Your task to perform on an android device: turn on location history Image 0: 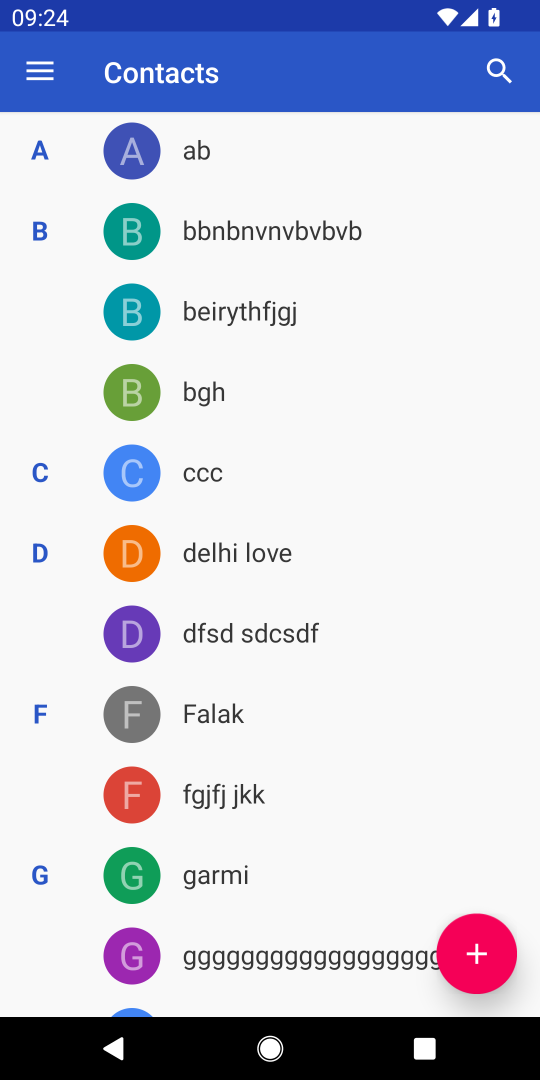
Step 0: press home button
Your task to perform on an android device: turn on location history Image 1: 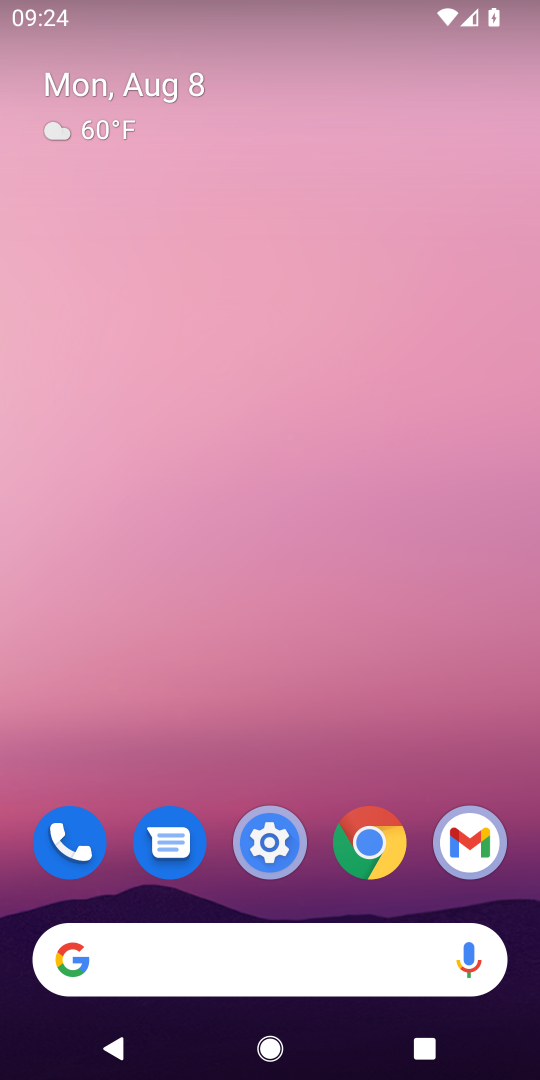
Step 1: click (259, 841)
Your task to perform on an android device: turn on location history Image 2: 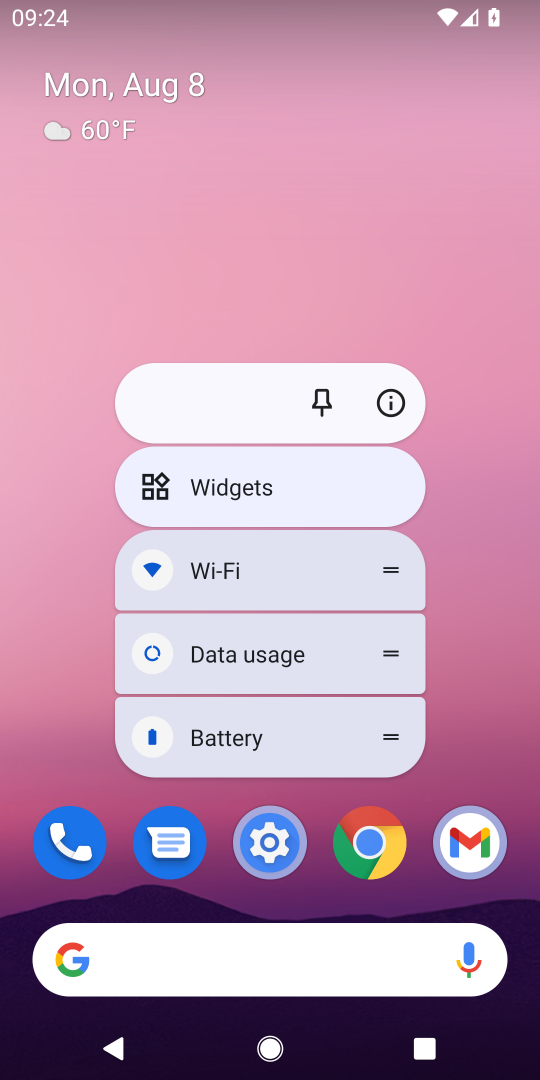
Step 2: click (259, 841)
Your task to perform on an android device: turn on location history Image 3: 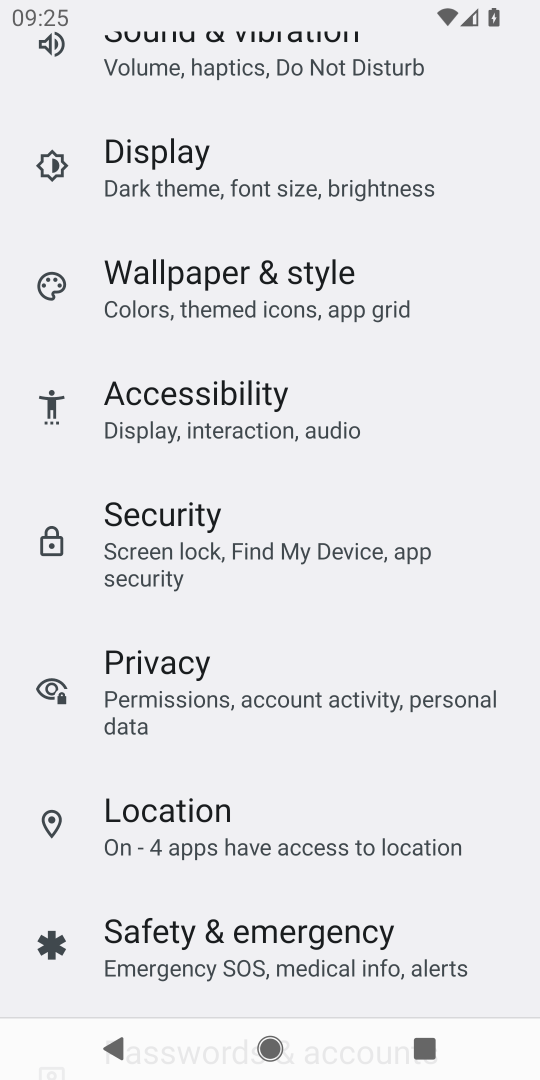
Step 3: click (215, 817)
Your task to perform on an android device: turn on location history Image 4: 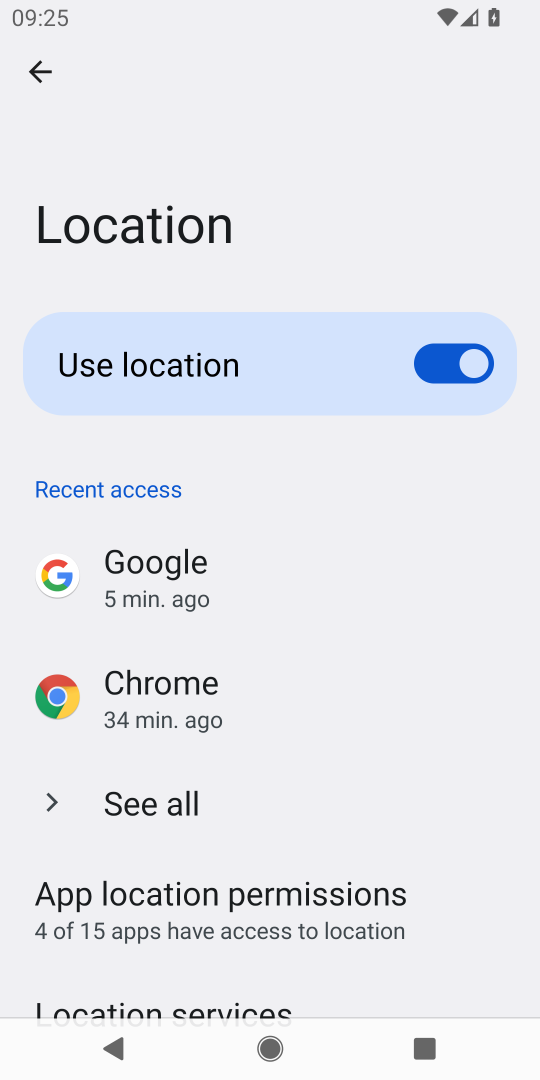
Step 4: click (229, 1001)
Your task to perform on an android device: turn on location history Image 5: 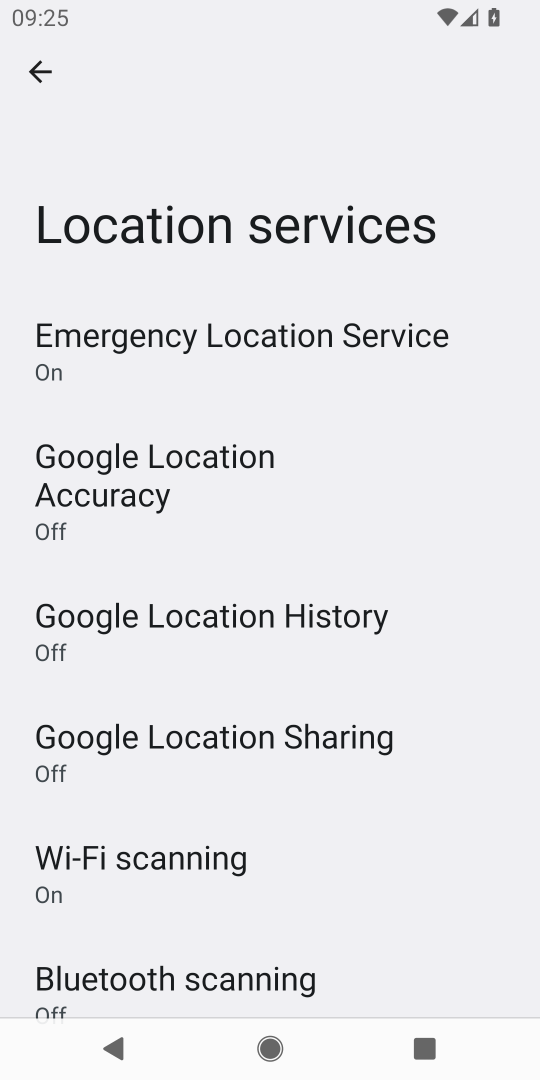
Step 5: click (286, 619)
Your task to perform on an android device: turn on location history Image 6: 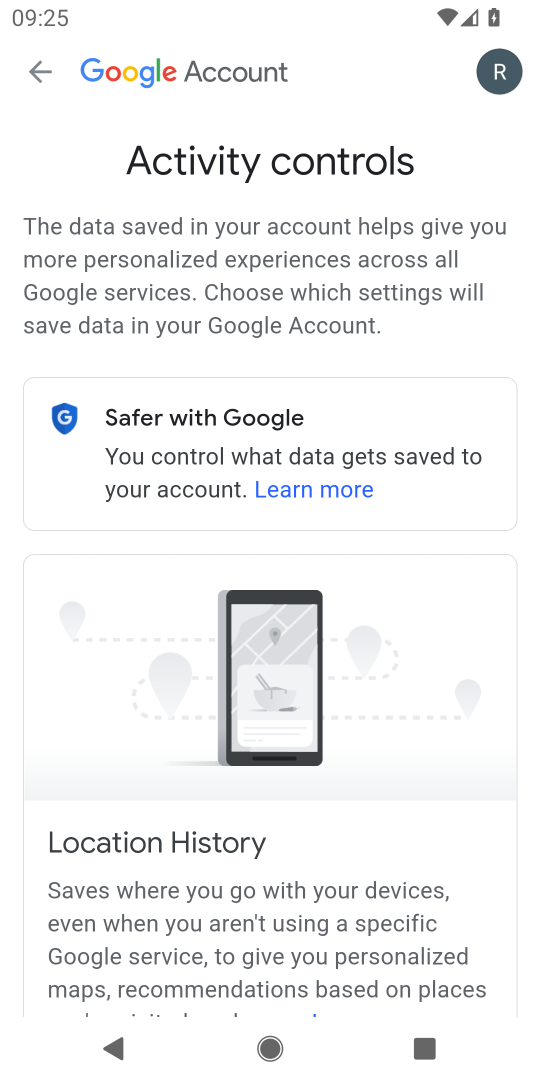
Step 6: drag from (353, 800) to (318, 115)
Your task to perform on an android device: turn on location history Image 7: 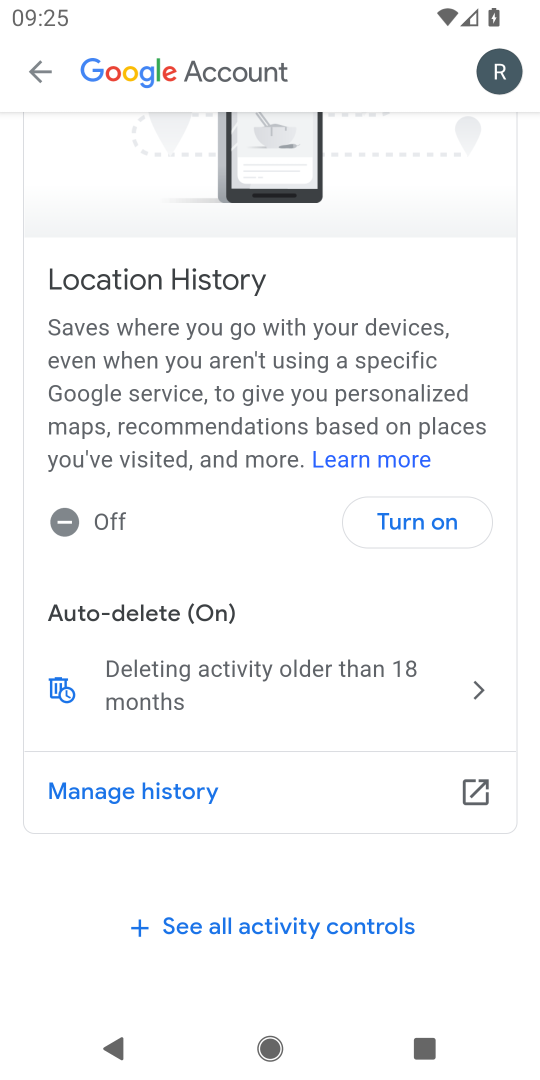
Step 7: click (389, 520)
Your task to perform on an android device: turn on location history Image 8: 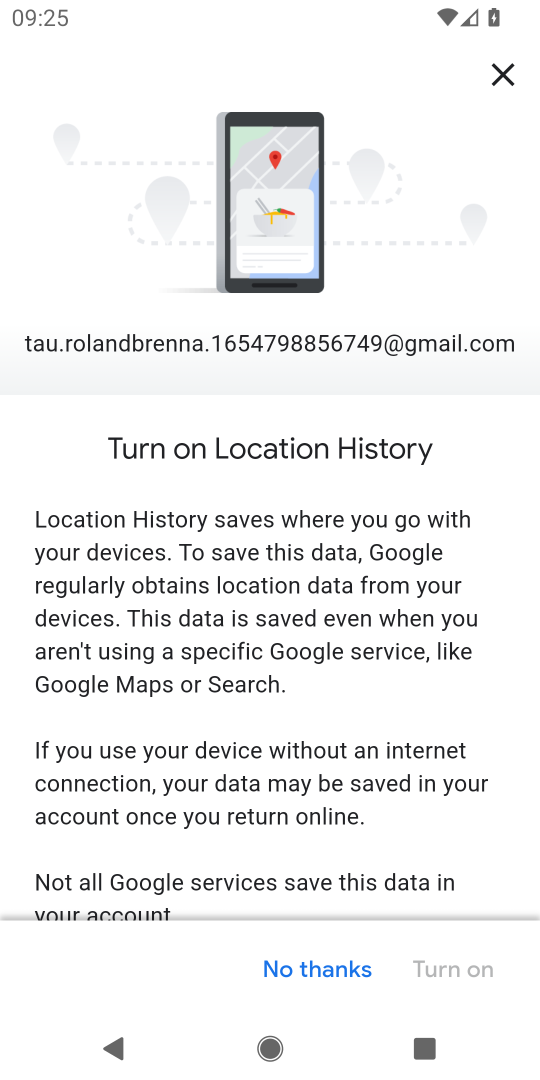
Step 8: click (375, 186)
Your task to perform on an android device: turn on location history Image 9: 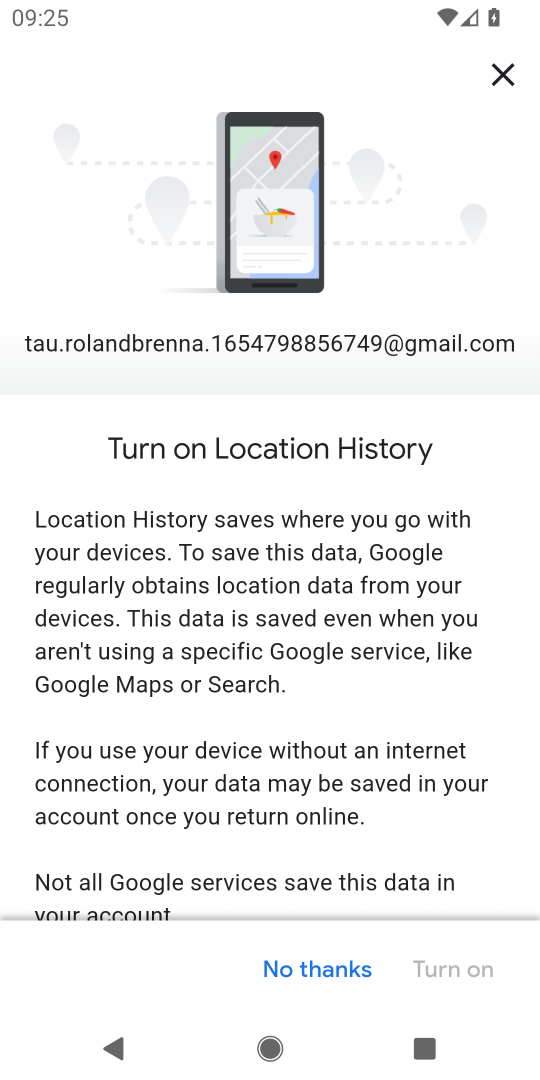
Step 9: drag from (336, 493) to (315, 179)
Your task to perform on an android device: turn on location history Image 10: 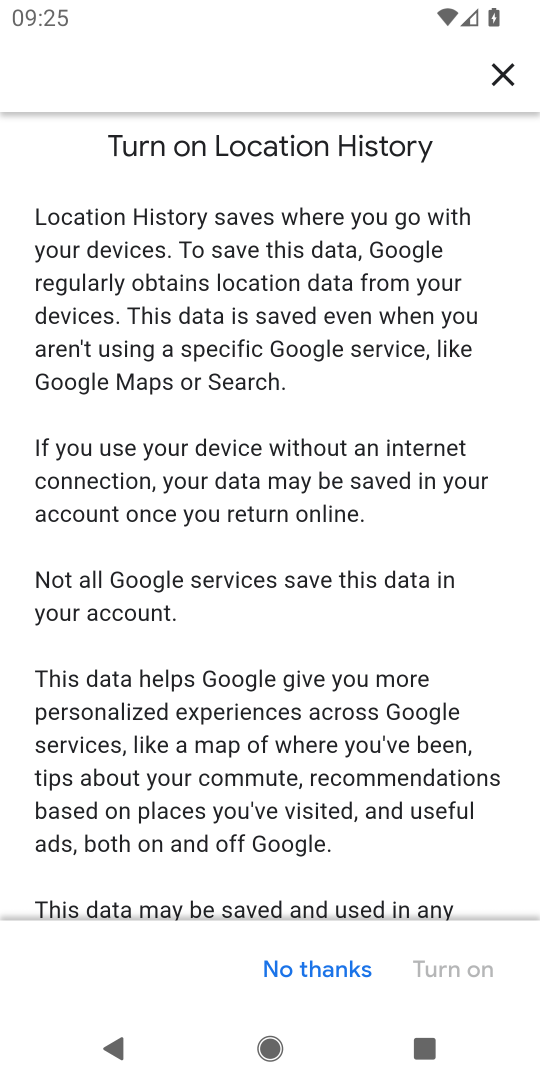
Step 10: drag from (310, 777) to (310, 210)
Your task to perform on an android device: turn on location history Image 11: 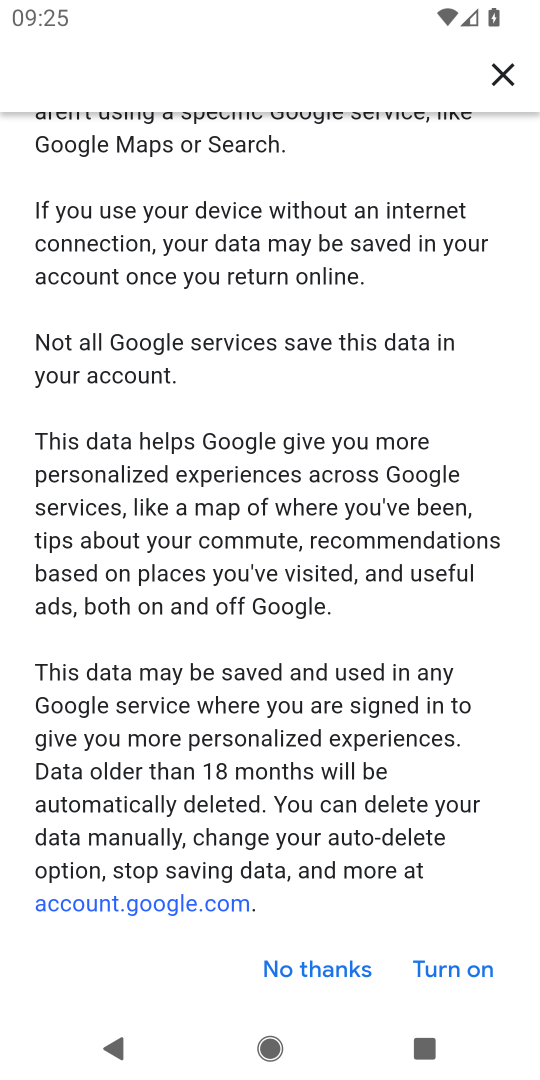
Step 11: click (472, 964)
Your task to perform on an android device: turn on location history Image 12: 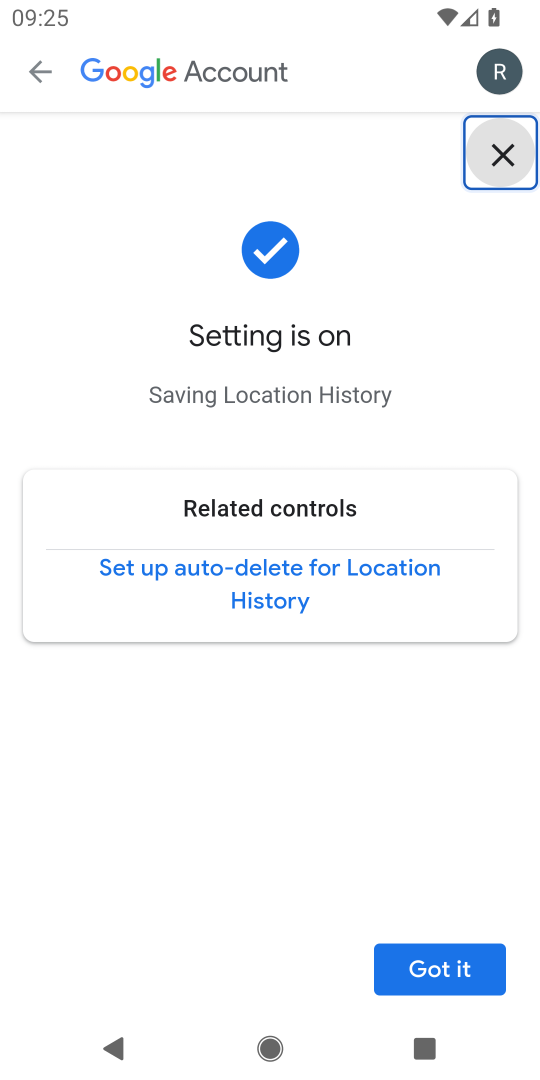
Step 12: task complete